Your task to perform on an android device: create a new album in the google photos Image 0: 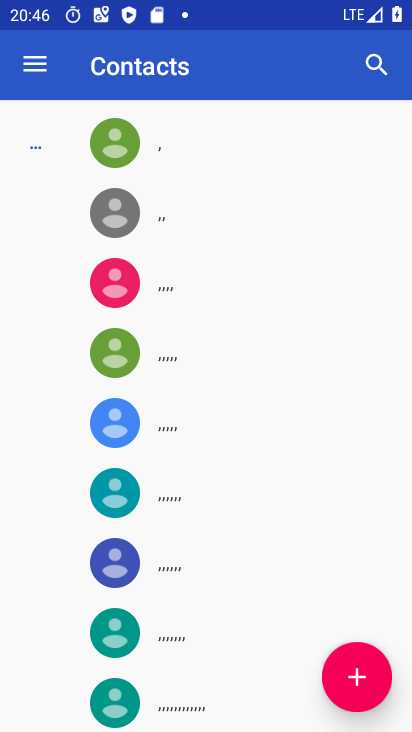
Step 0: press home button
Your task to perform on an android device: create a new album in the google photos Image 1: 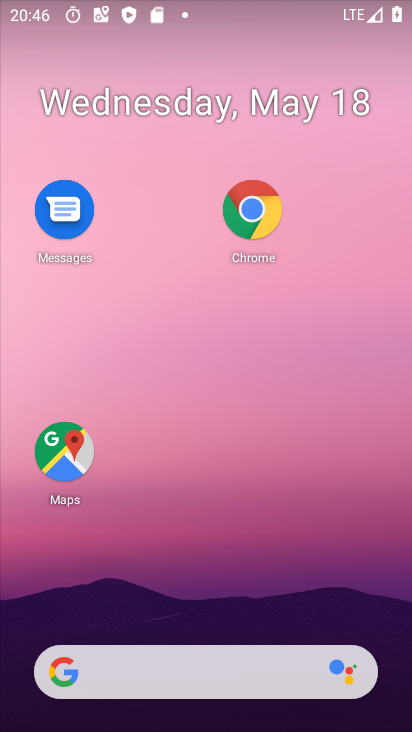
Step 1: drag from (144, 625) to (291, 24)
Your task to perform on an android device: create a new album in the google photos Image 2: 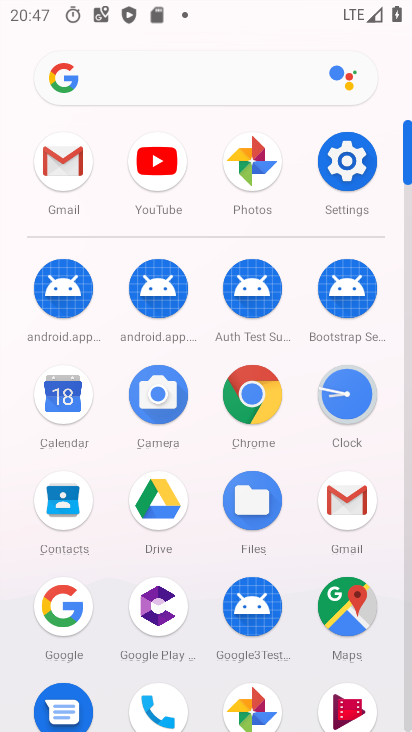
Step 2: click (267, 149)
Your task to perform on an android device: create a new album in the google photos Image 3: 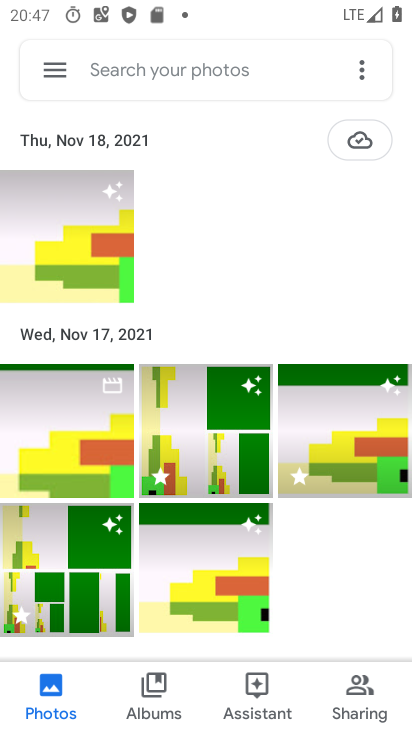
Step 3: click (95, 556)
Your task to perform on an android device: create a new album in the google photos Image 4: 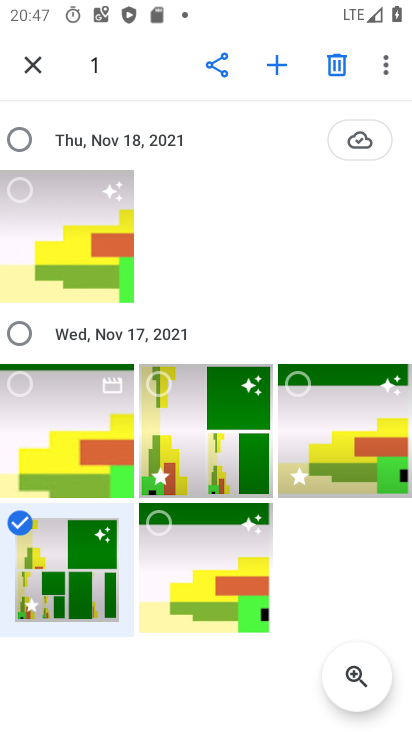
Step 4: click (161, 517)
Your task to perform on an android device: create a new album in the google photos Image 5: 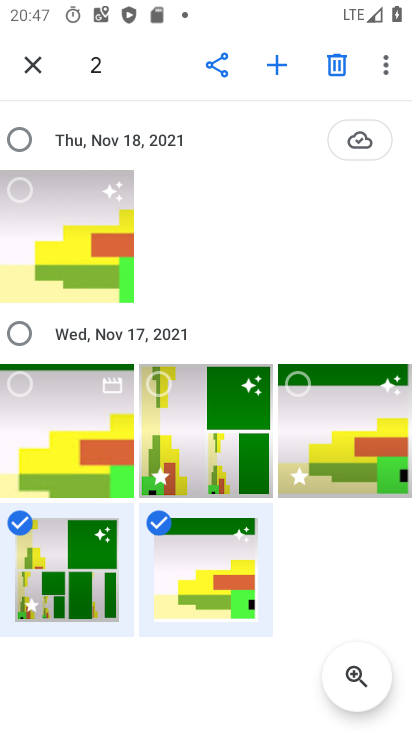
Step 5: click (273, 65)
Your task to perform on an android device: create a new album in the google photos Image 6: 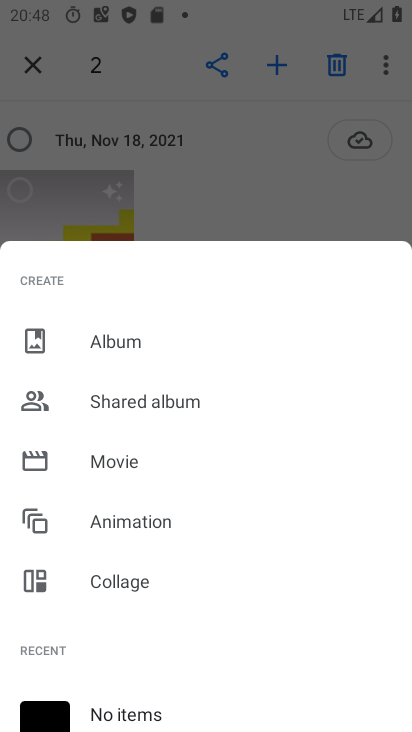
Step 6: click (90, 356)
Your task to perform on an android device: create a new album in the google photos Image 7: 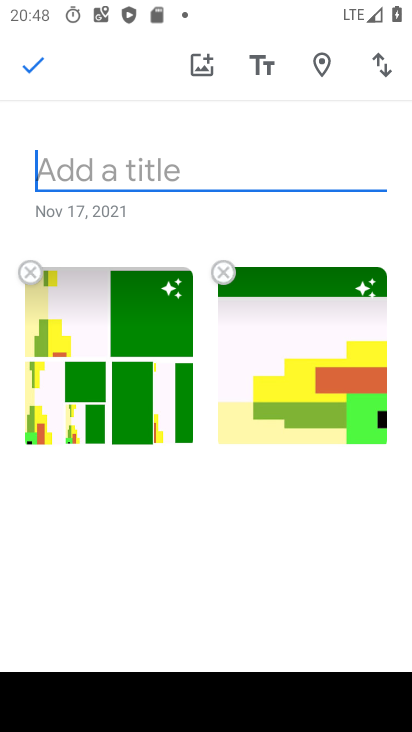
Step 7: type "pio"
Your task to perform on an android device: create a new album in the google photos Image 8: 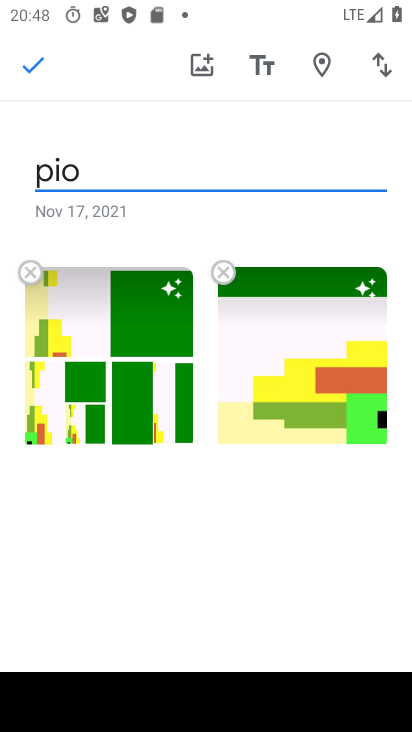
Step 8: click (30, 64)
Your task to perform on an android device: create a new album in the google photos Image 9: 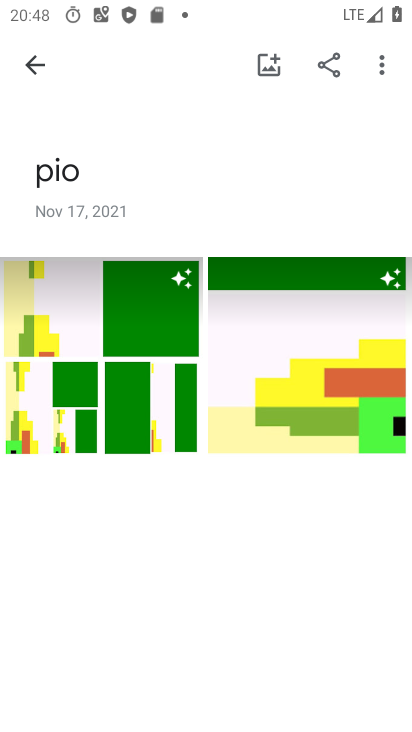
Step 9: task complete